Your task to perform on an android device: turn off translation in the chrome app Image 0: 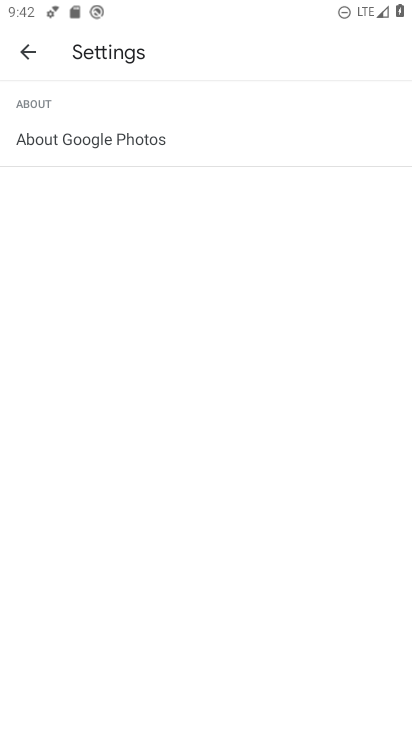
Step 0: press home button
Your task to perform on an android device: turn off translation in the chrome app Image 1: 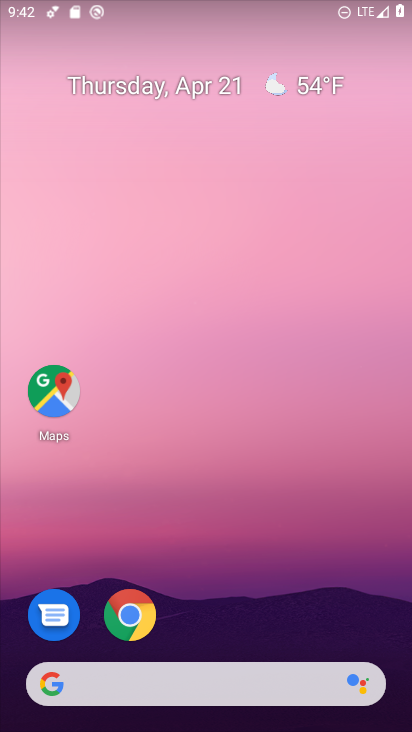
Step 1: drag from (267, 479) to (336, 38)
Your task to perform on an android device: turn off translation in the chrome app Image 2: 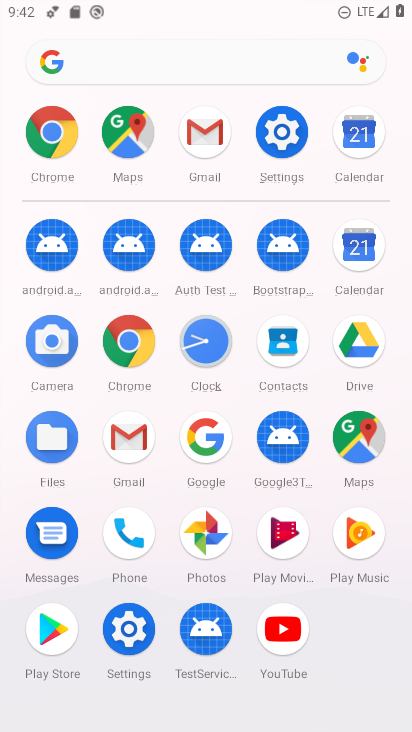
Step 2: click (49, 139)
Your task to perform on an android device: turn off translation in the chrome app Image 3: 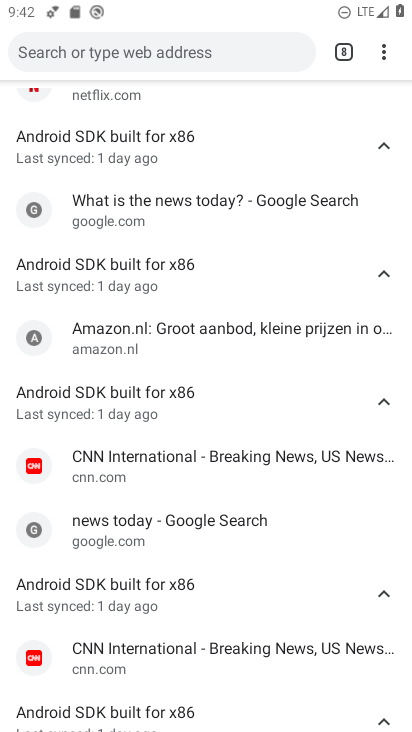
Step 3: drag from (386, 38) to (198, 428)
Your task to perform on an android device: turn off translation in the chrome app Image 4: 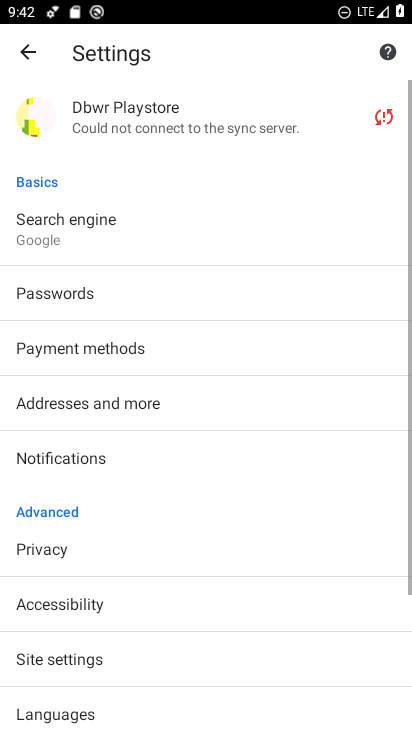
Step 4: drag from (148, 585) to (67, 147)
Your task to perform on an android device: turn off translation in the chrome app Image 5: 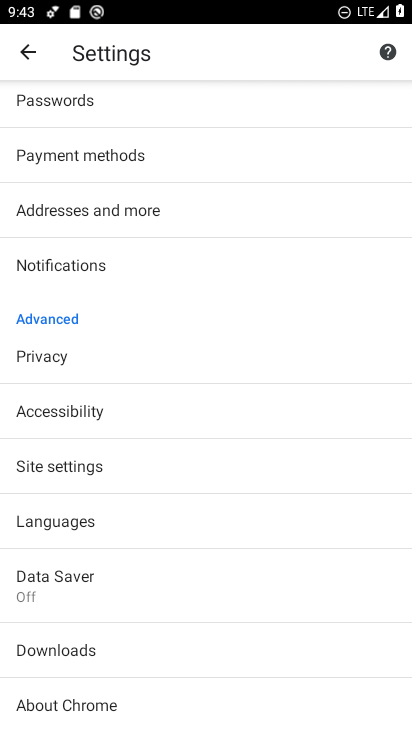
Step 5: click (87, 516)
Your task to perform on an android device: turn off translation in the chrome app Image 6: 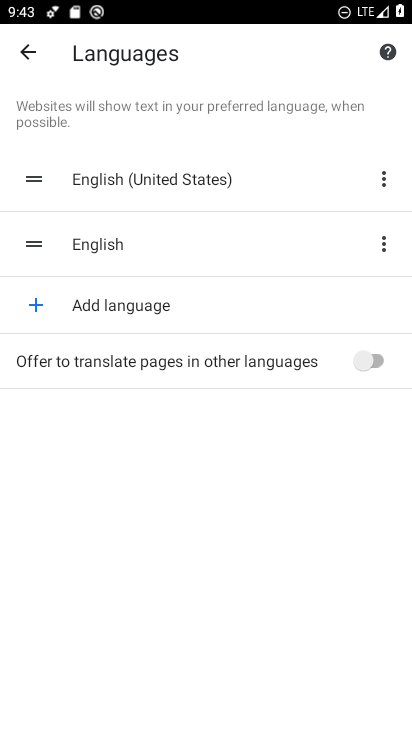
Step 6: task complete